Your task to perform on an android device: Search for "logitech g pro" on ebay.com, select the first entry, add it to the cart, then select checkout. Image 0: 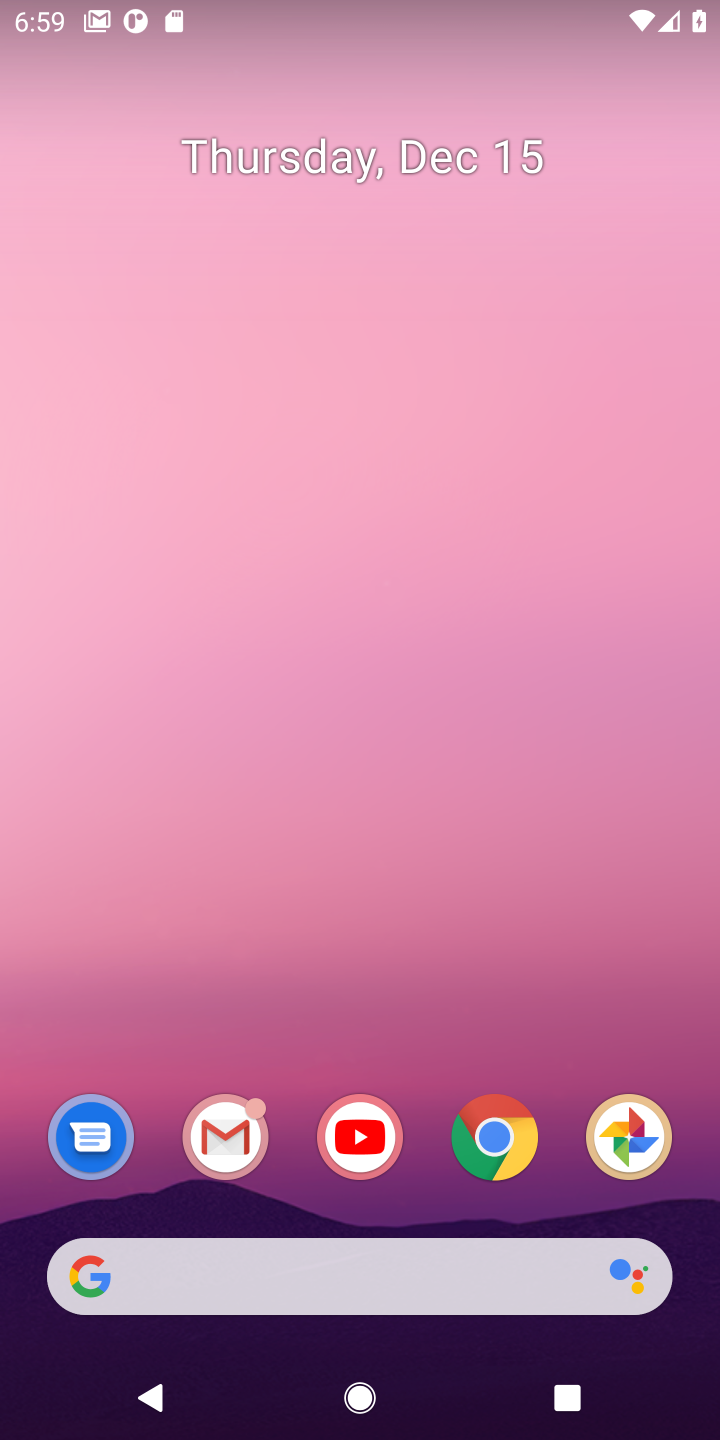
Step 0: drag from (398, 981) to (338, 508)
Your task to perform on an android device: Search for "logitech g pro" on ebay.com, select the first entry, add it to the cart, then select checkout. Image 1: 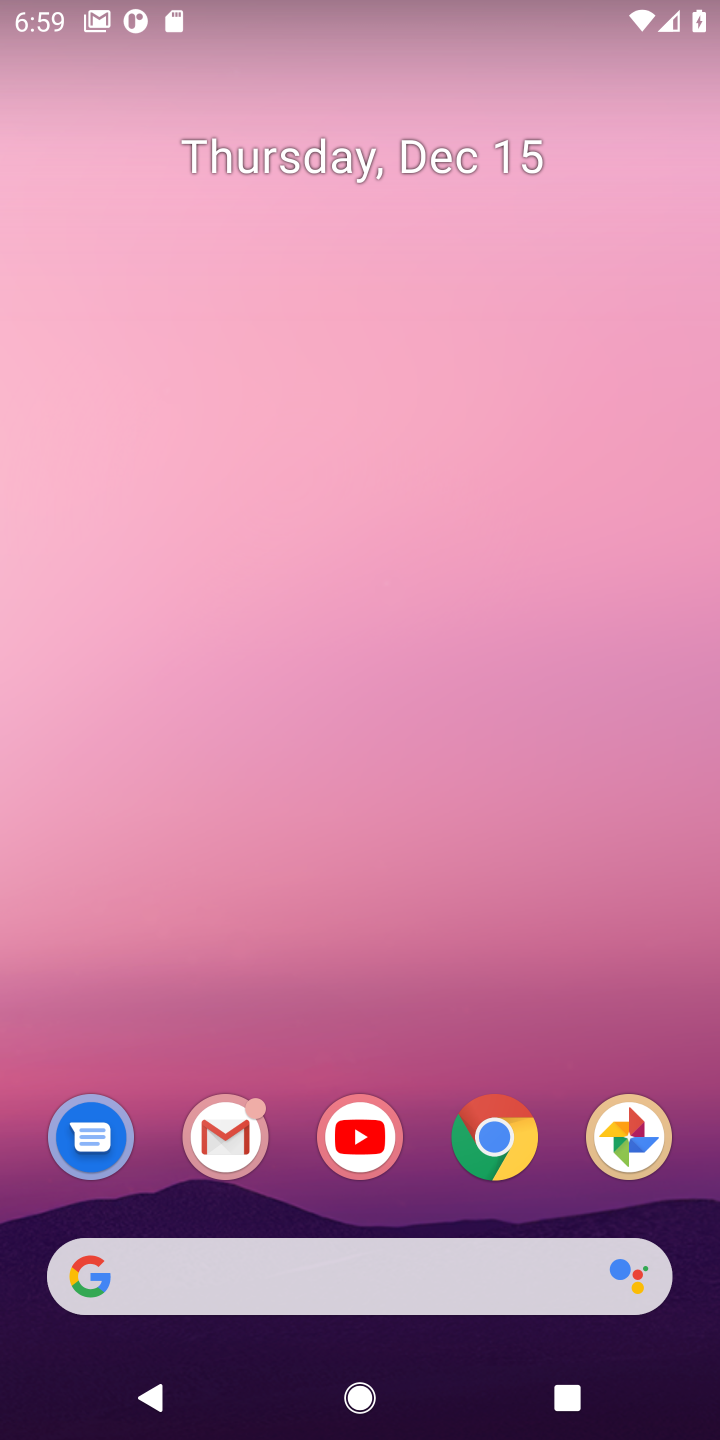
Step 1: drag from (258, 1037) to (258, 498)
Your task to perform on an android device: Search for "logitech g pro" on ebay.com, select the first entry, add it to the cart, then select checkout. Image 2: 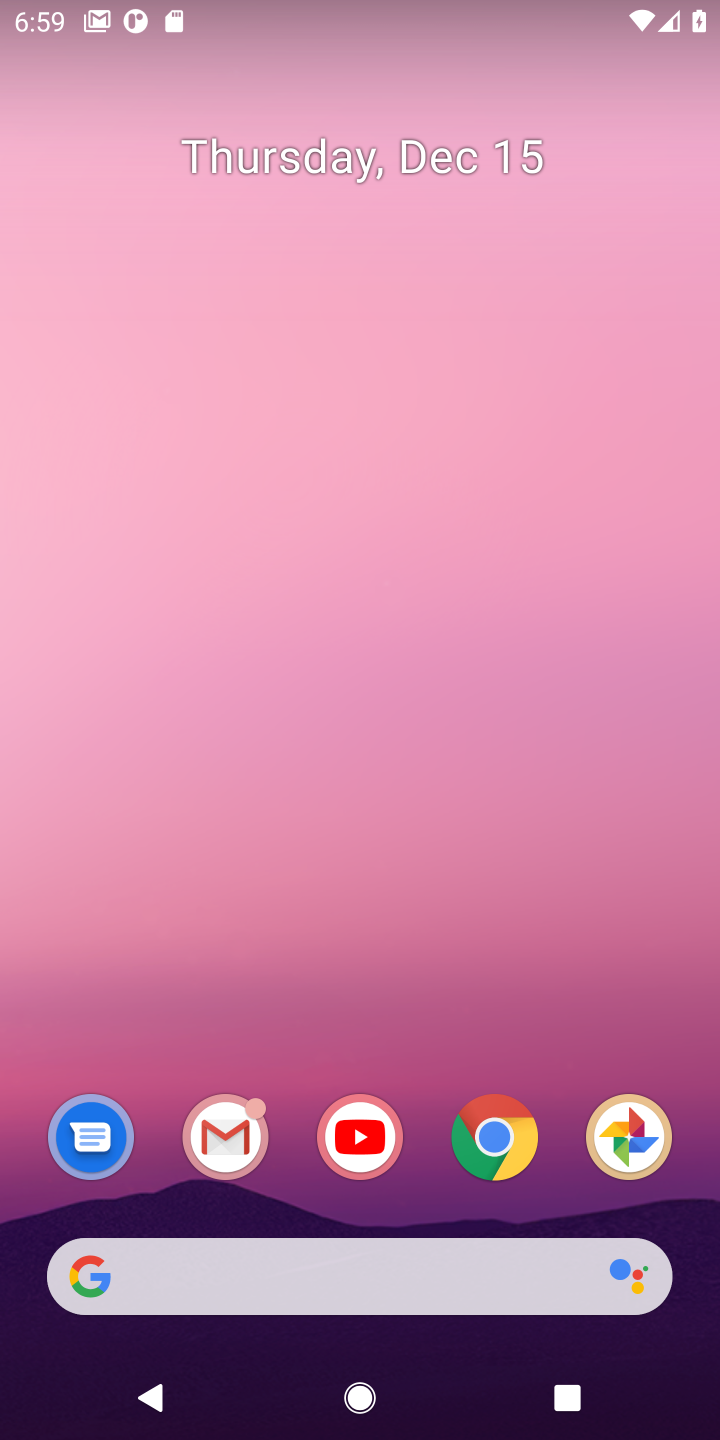
Step 2: drag from (308, 1246) to (306, 177)
Your task to perform on an android device: Search for "logitech g pro" on ebay.com, select the first entry, add it to the cart, then select checkout. Image 3: 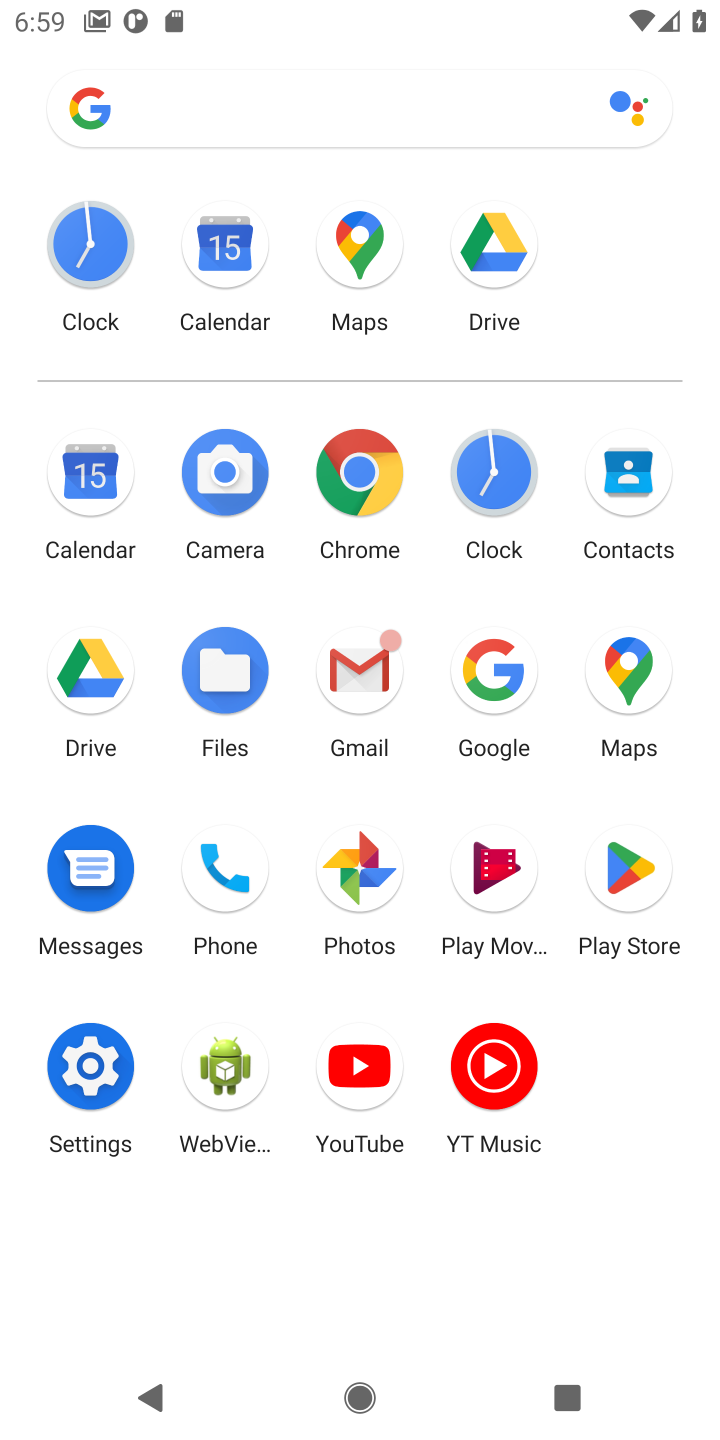
Step 3: click (486, 669)
Your task to perform on an android device: Search for "logitech g pro" on ebay.com, select the first entry, add it to the cart, then select checkout. Image 4: 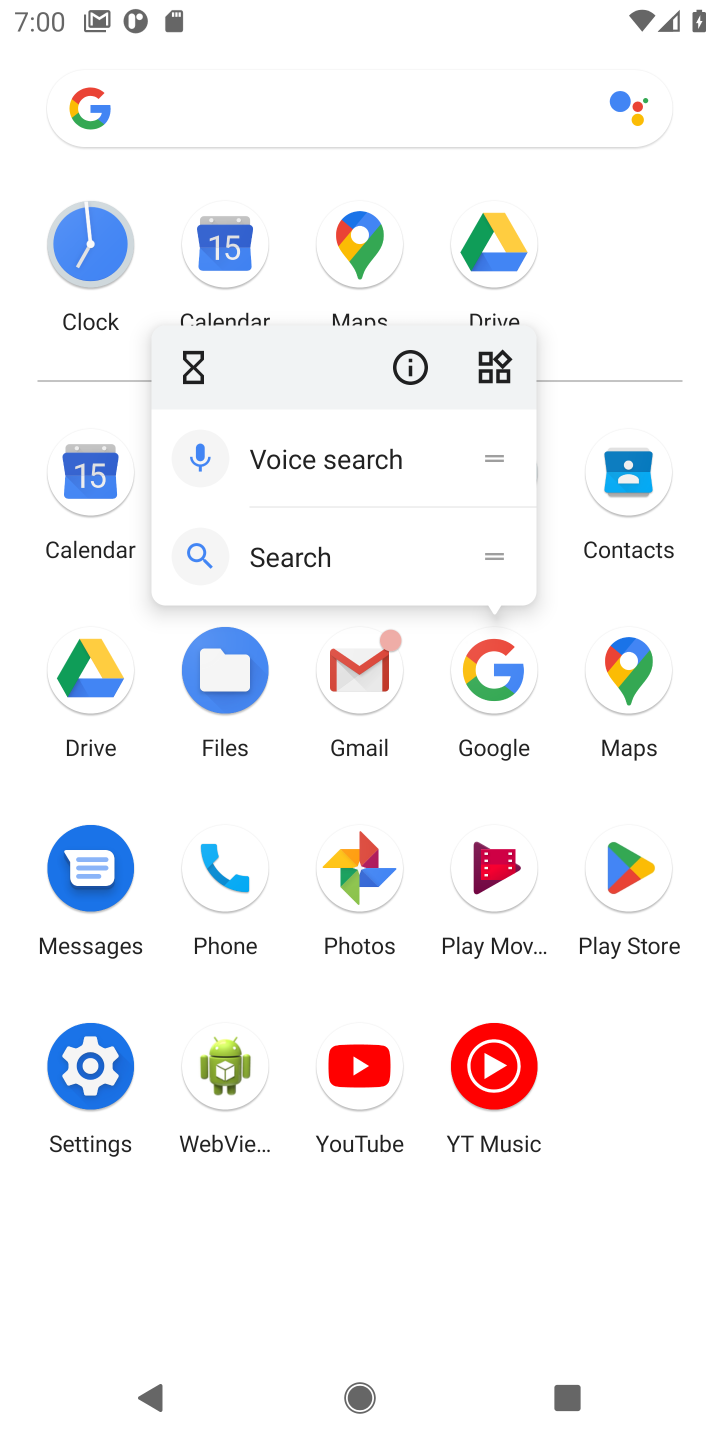
Step 4: click (492, 664)
Your task to perform on an android device: Search for "logitech g pro" on ebay.com, select the first entry, add it to the cart, then select checkout. Image 5: 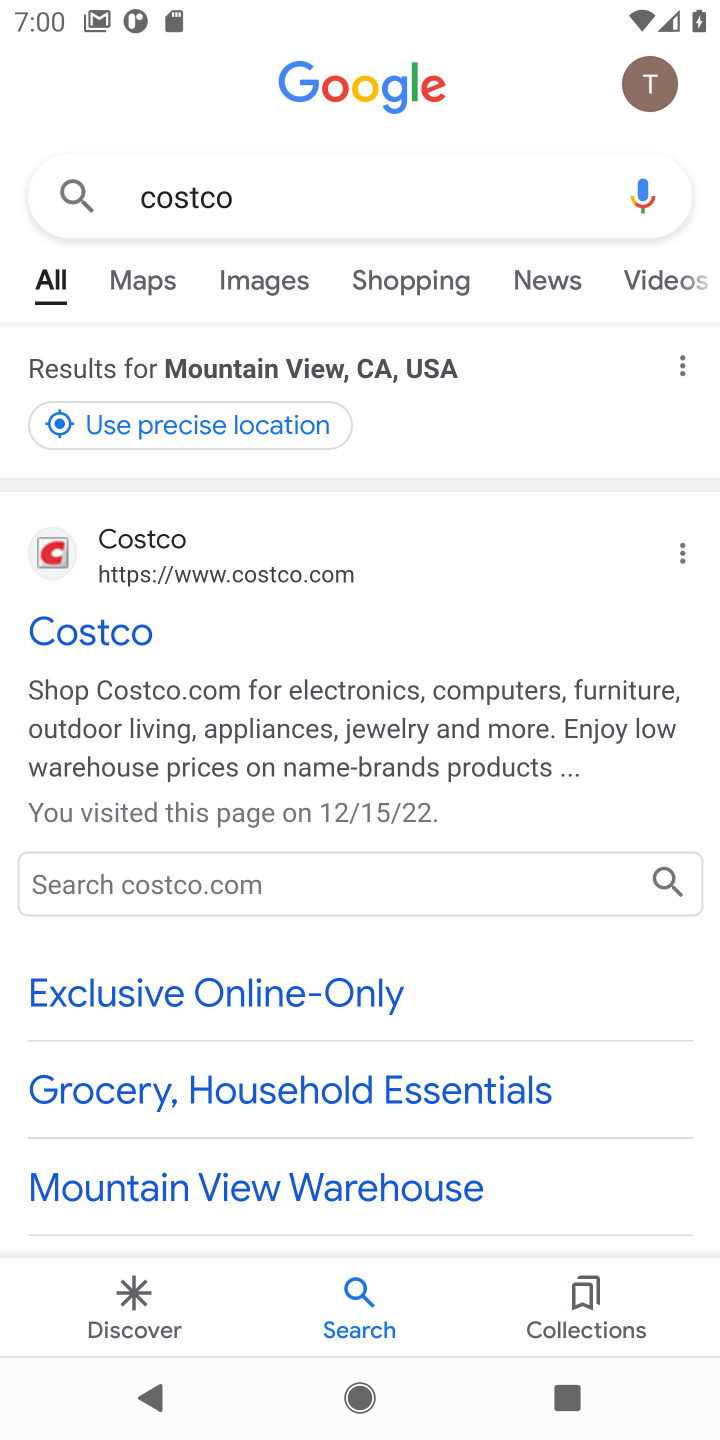
Step 5: click (173, 198)
Your task to perform on an android device: Search for "logitech g pro" on ebay.com, select the first entry, add it to the cart, then select checkout. Image 6: 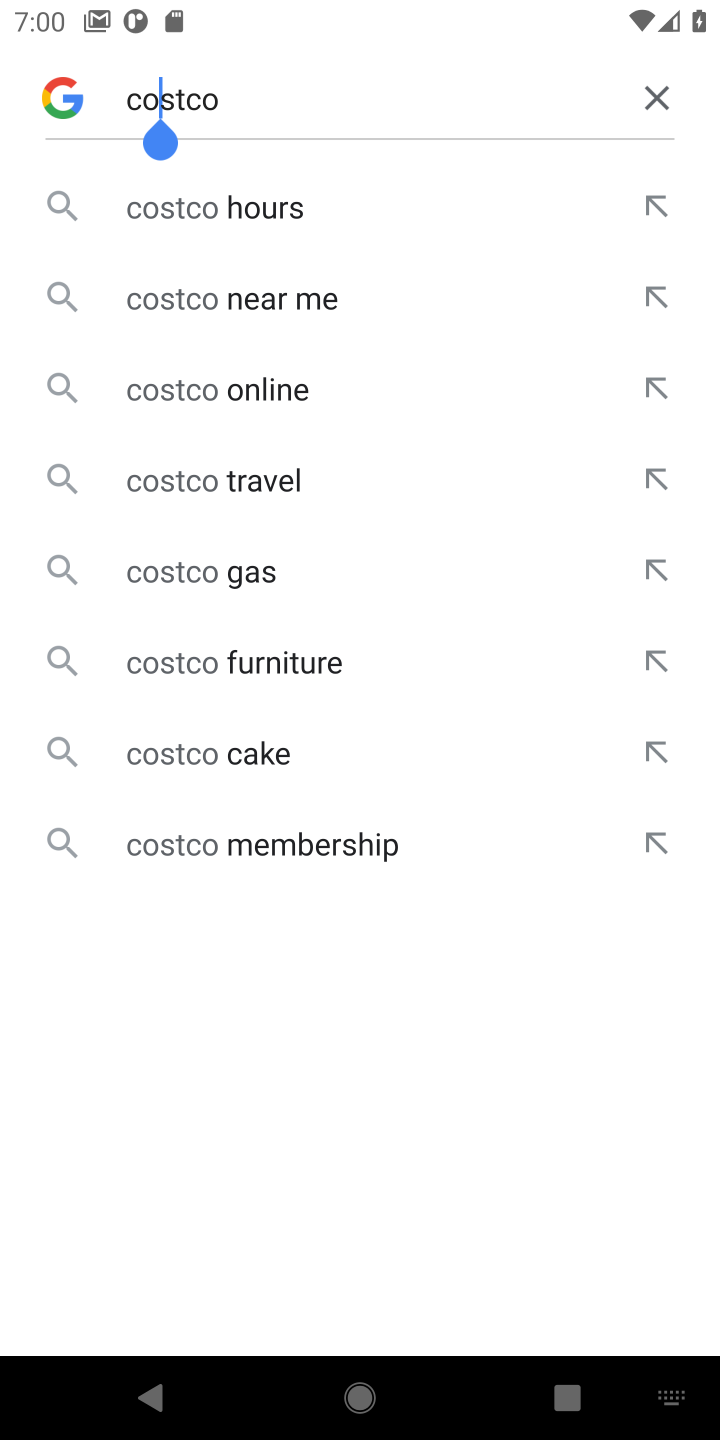
Step 6: click (658, 91)
Your task to perform on an android device: Search for "logitech g pro" on ebay.com, select the first entry, add it to the cart, then select checkout. Image 7: 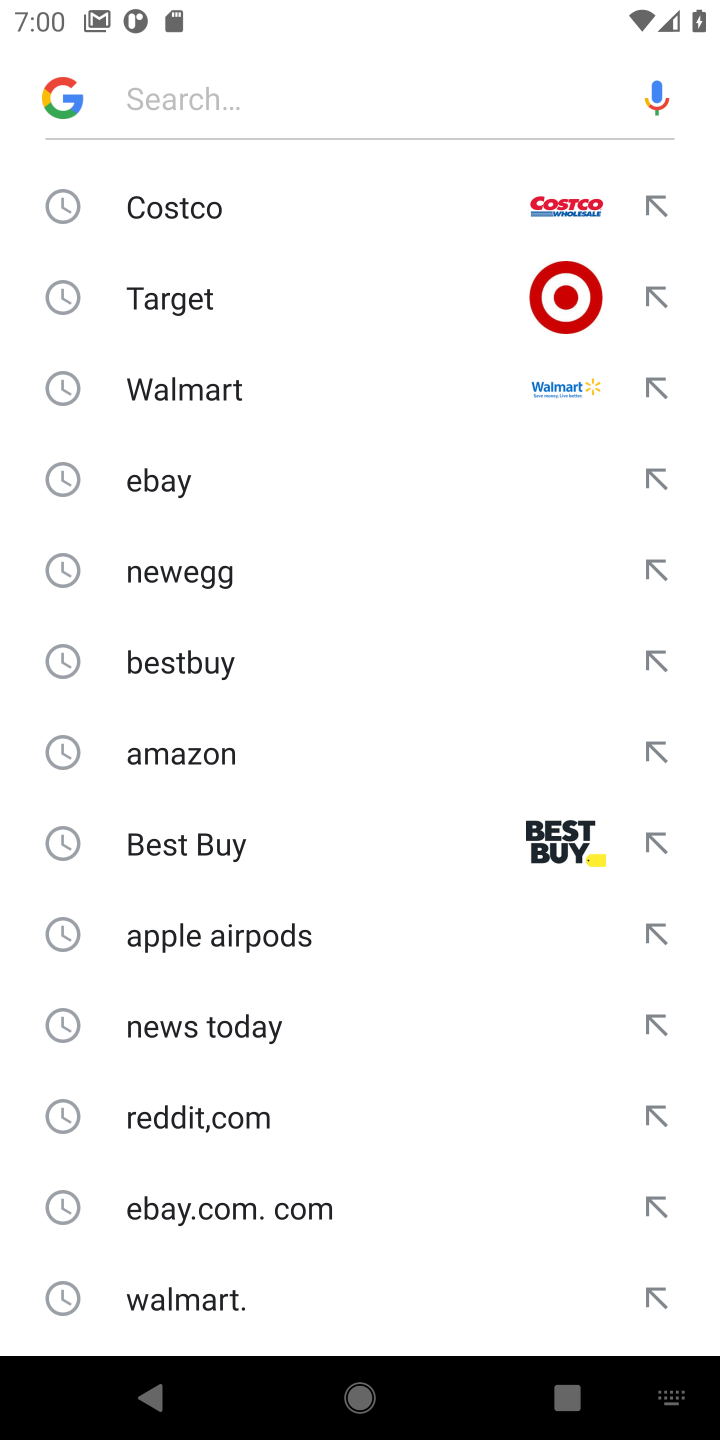
Step 7: click (145, 484)
Your task to perform on an android device: Search for "logitech g pro" on ebay.com, select the first entry, add it to the cart, then select checkout. Image 8: 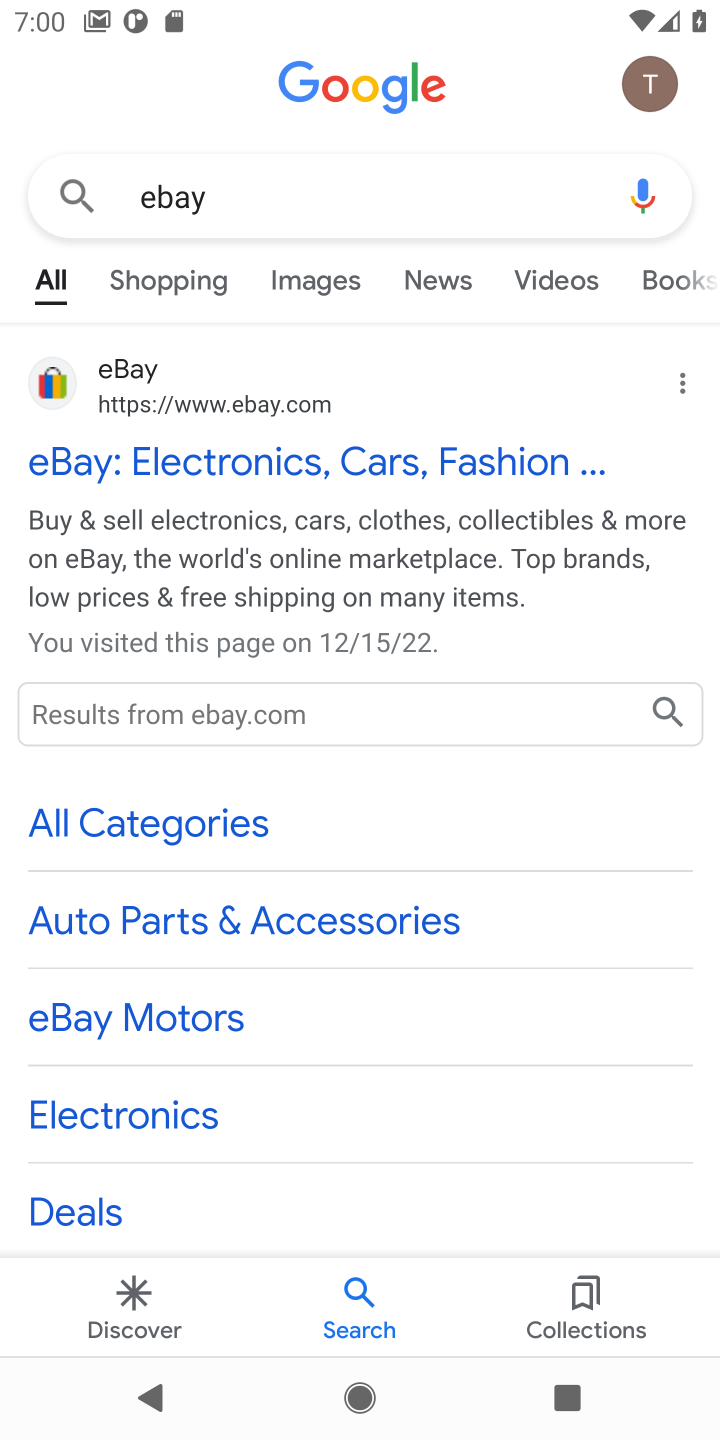
Step 8: click (198, 454)
Your task to perform on an android device: Search for "logitech g pro" on ebay.com, select the first entry, add it to the cart, then select checkout. Image 9: 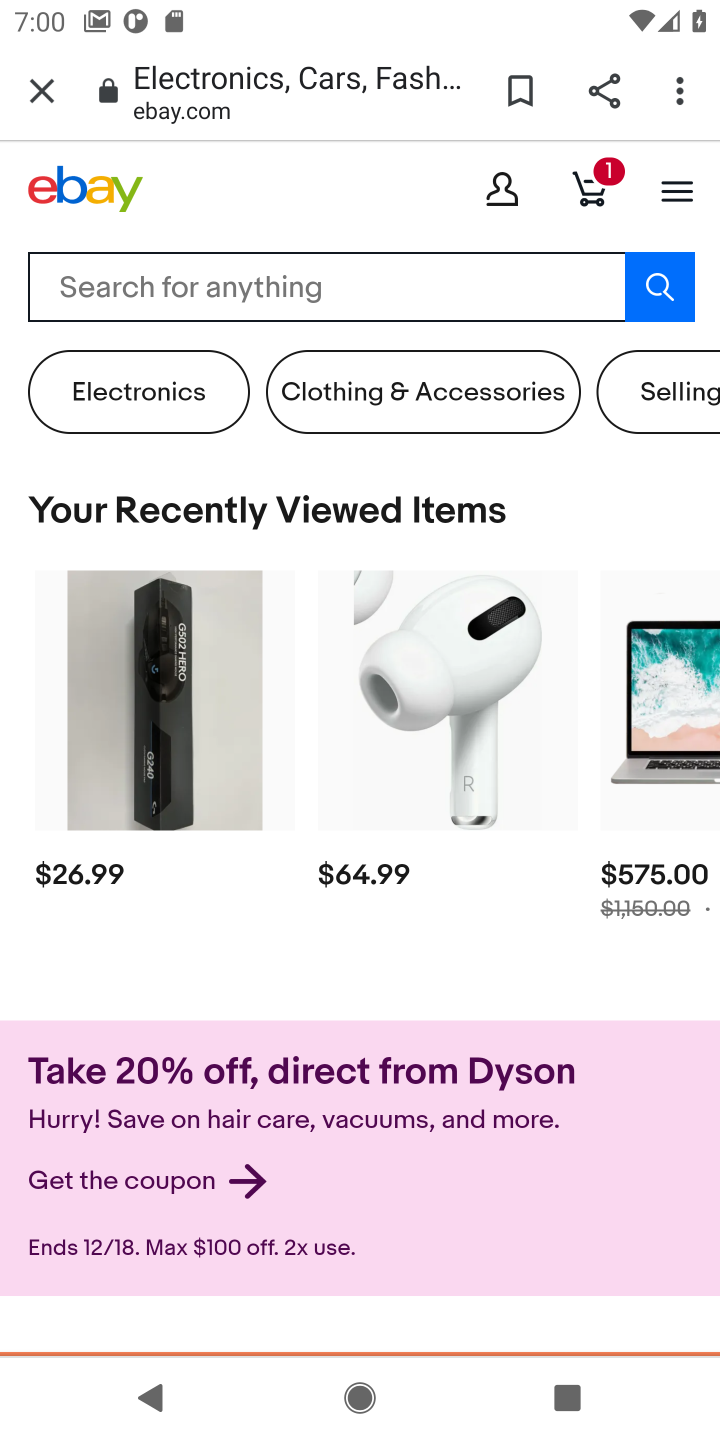
Step 9: click (92, 285)
Your task to perform on an android device: Search for "logitech g pro" on ebay.com, select the first entry, add it to the cart, then select checkout. Image 10: 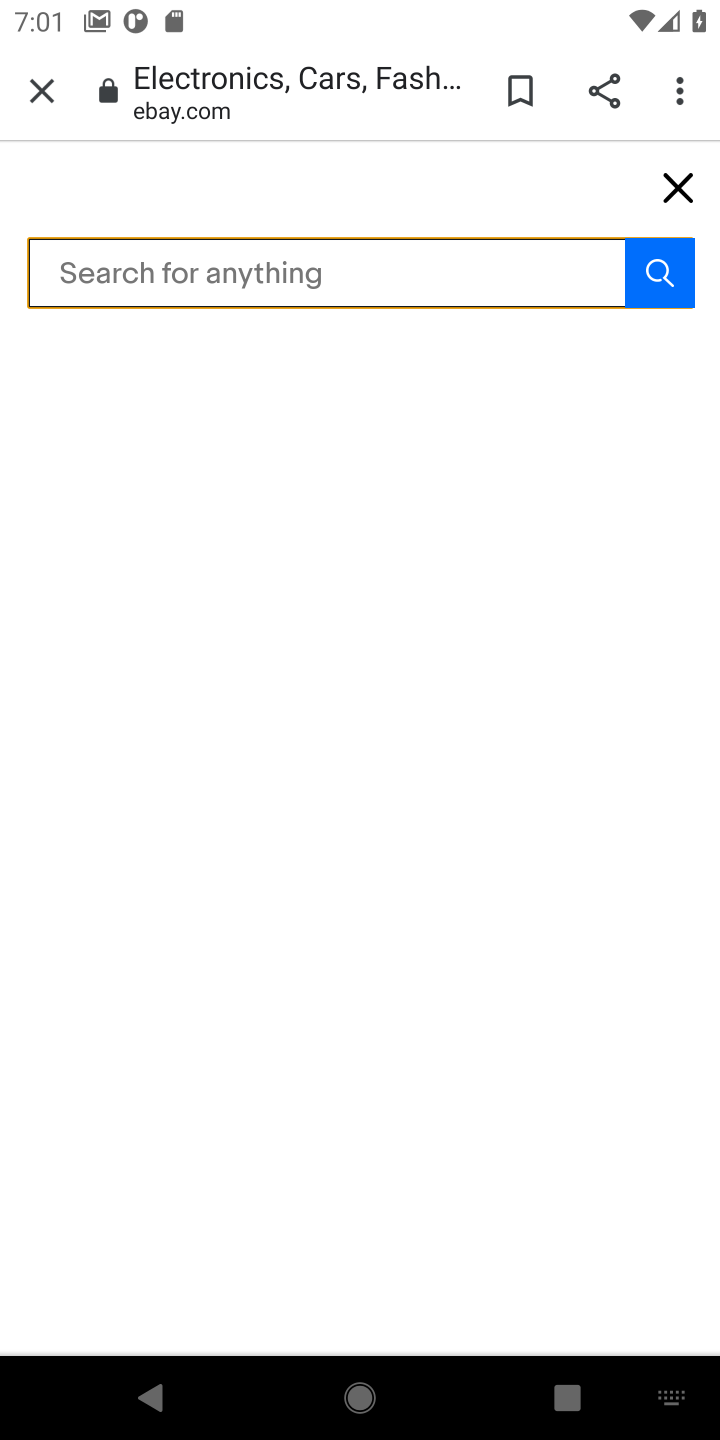
Step 10: type "logitech g pro"
Your task to perform on an android device: Search for "logitech g pro" on ebay.com, select the first entry, add it to the cart, then select checkout. Image 11: 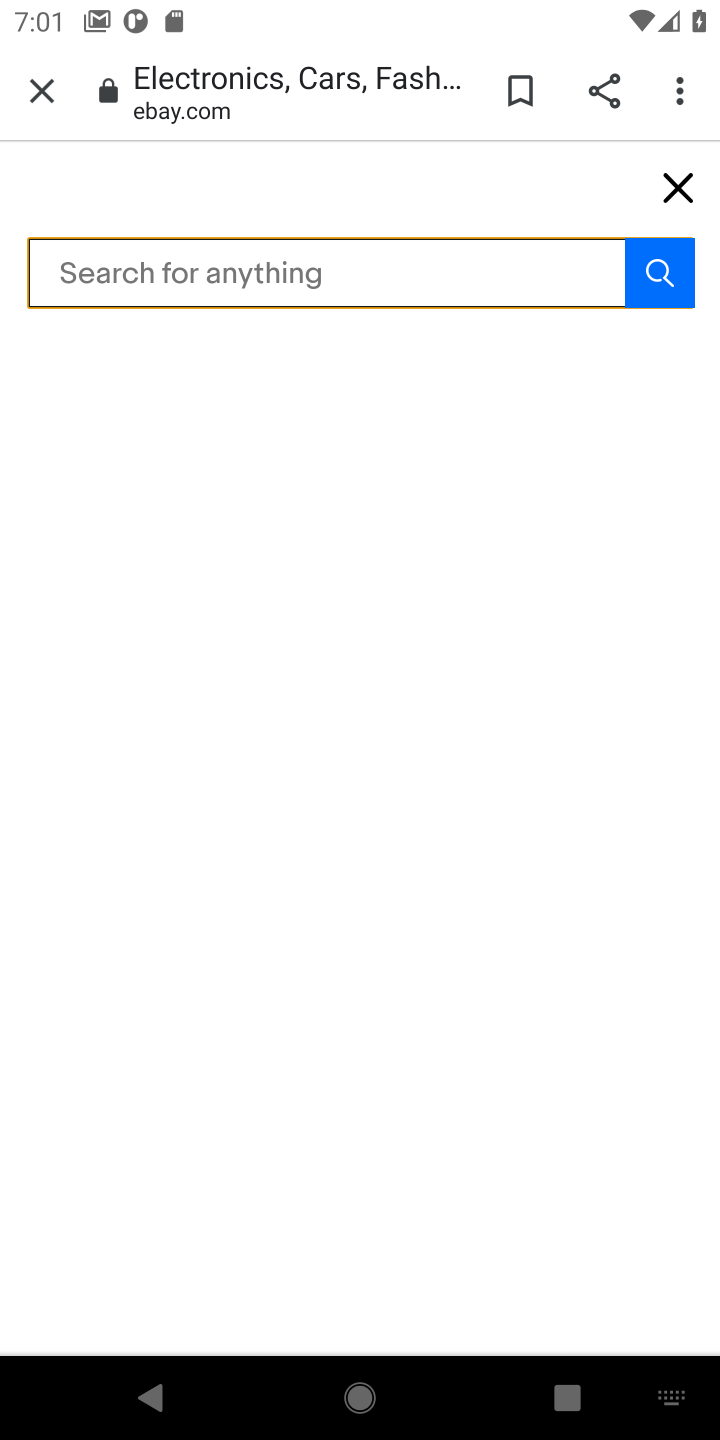
Step 11: click (645, 276)
Your task to perform on an android device: Search for "logitech g pro" on ebay.com, select the first entry, add it to the cart, then select checkout. Image 12: 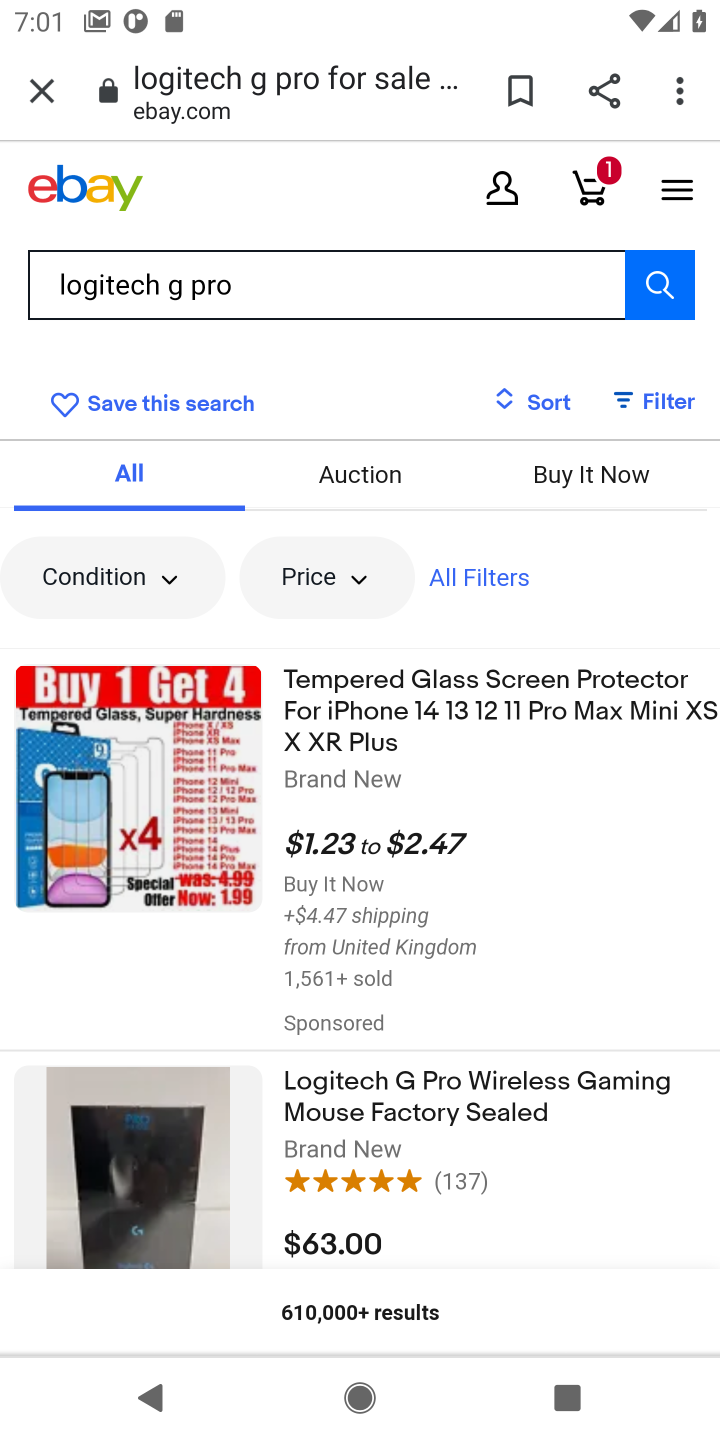
Step 12: click (389, 718)
Your task to perform on an android device: Search for "logitech g pro" on ebay.com, select the first entry, add it to the cart, then select checkout. Image 13: 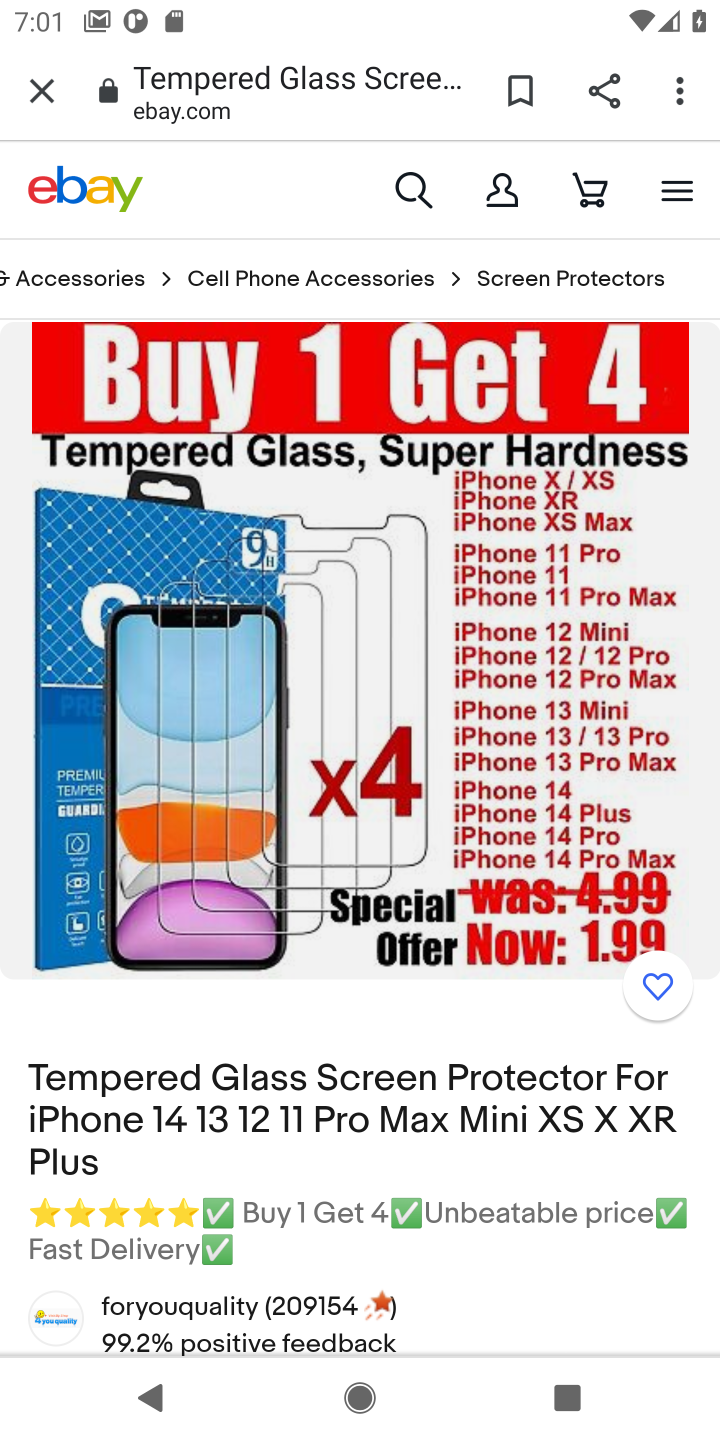
Step 13: drag from (394, 940) to (387, 574)
Your task to perform on an android device: Search for "logitech g pro" on ebay.com, select the first entry, add it to the cart, then select checkout. Image 14: 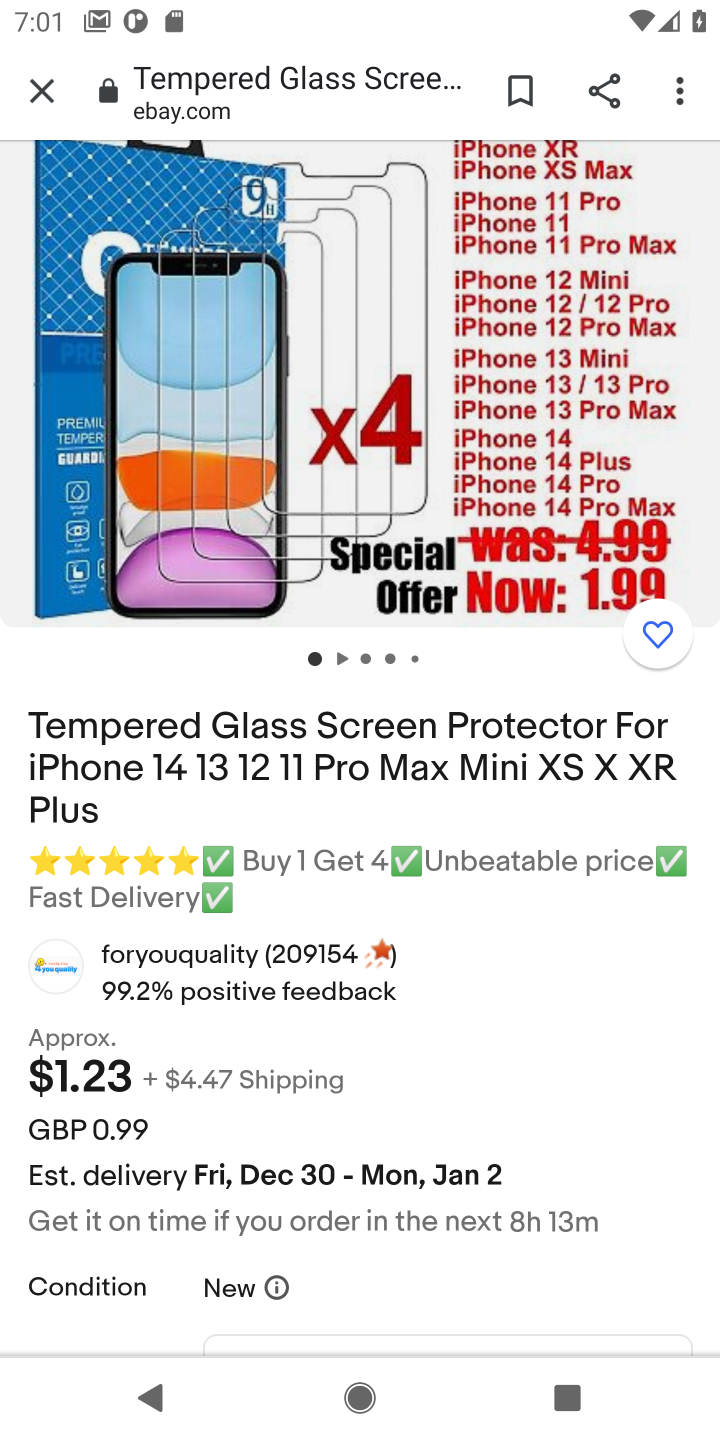
Step 14: drag from (389, 1090) to (352, 607)
Your task to perform on an android device: Search for "logitech g pro" on ebay.com, select the first entry, add it to the cart, then select checkout. Image 15: 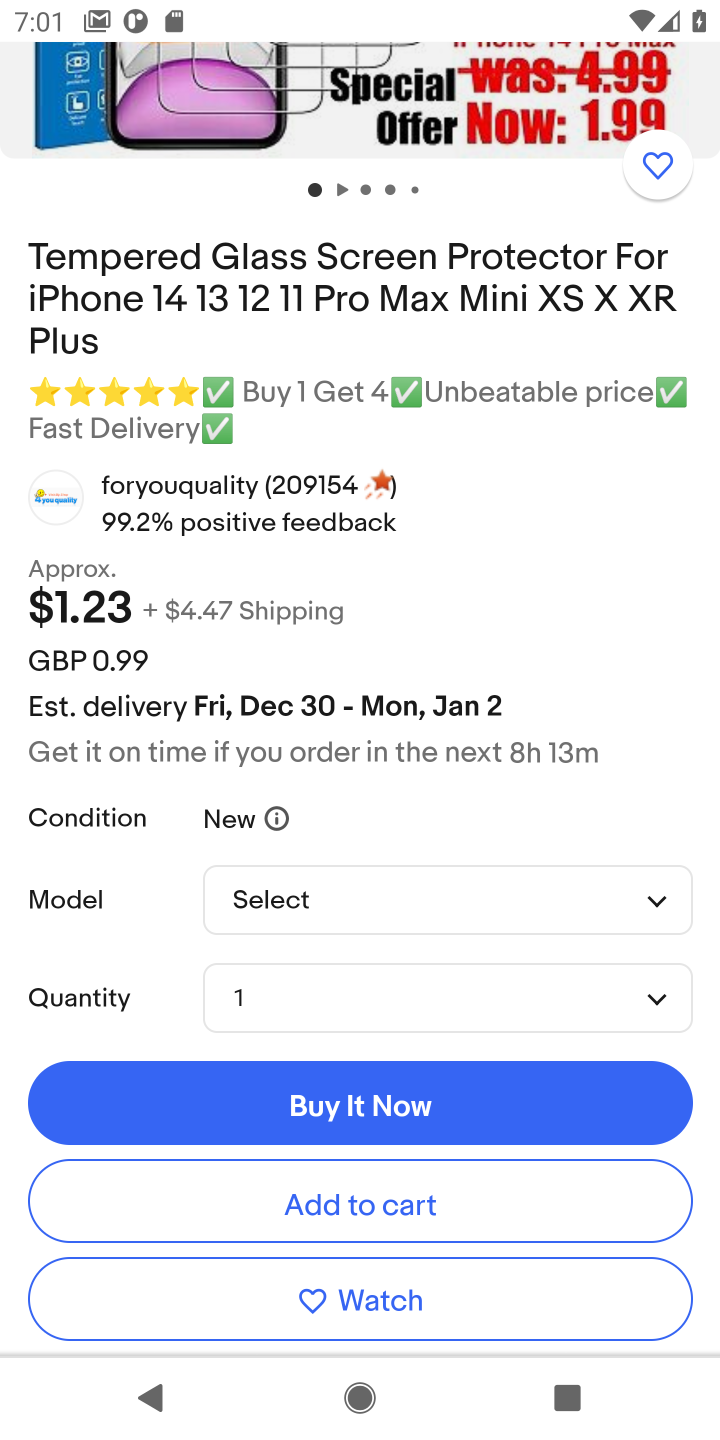
Step 15: click (390, 1194)
Your task to perform on an android device: Search for "logitech g pro" on ebay.com, select the first entry, add it to the cart, then select checkout. Image 16: 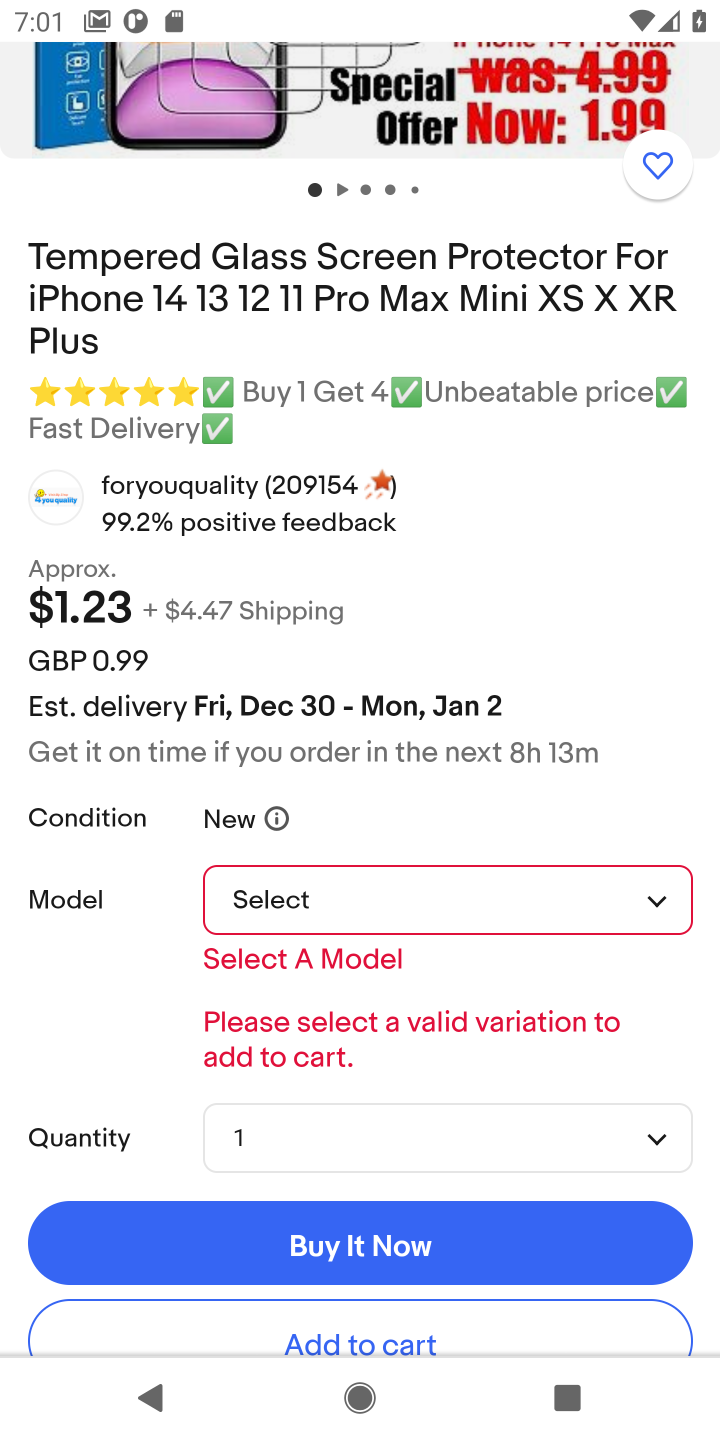
Step 16: click (670, 901)
Your task to perform on an android device: Search for "logitech g pro" on ebay.com, select the first entry, add it to the cart, then select checkout. Image 17: 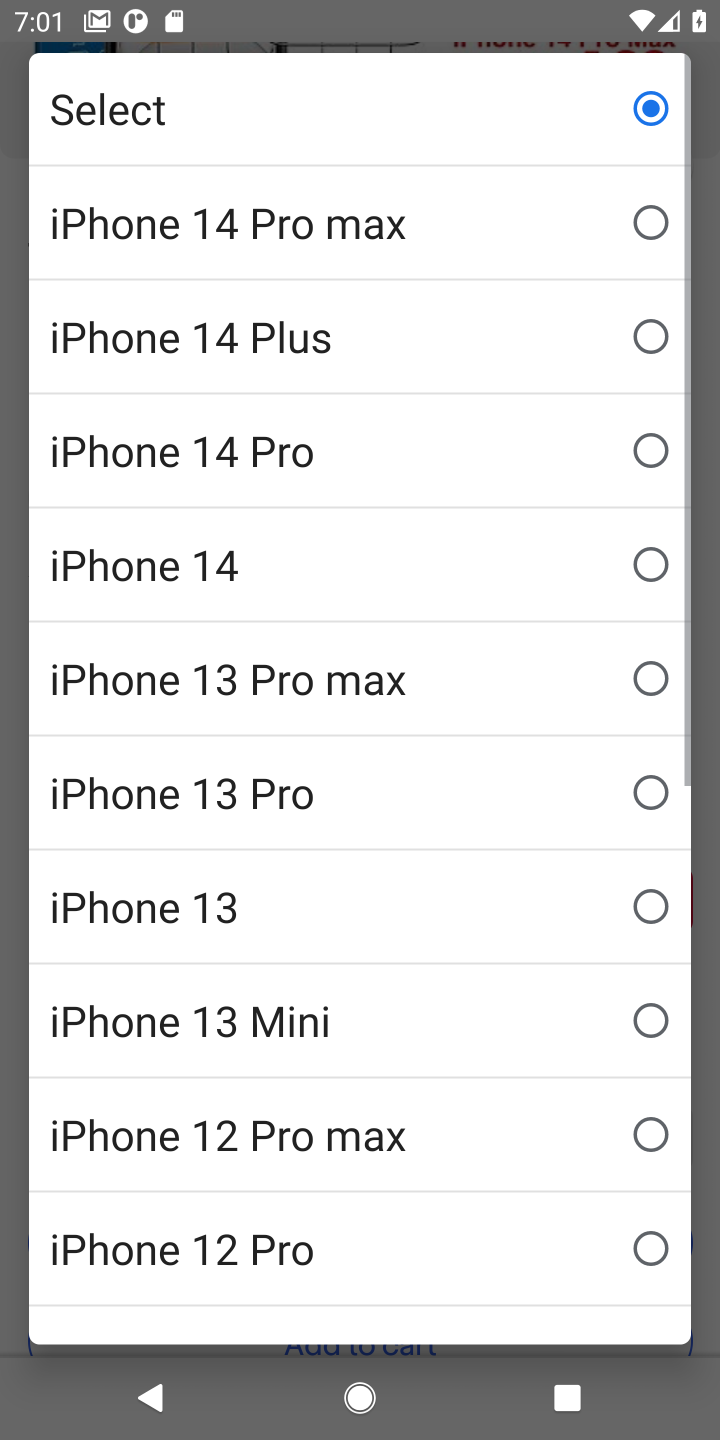
Step 17: click (237, 920)
Your task to perform on an android device: Search for "logitech g pro" on ebay.com, select the first entry, add it to the cart, then select checkout. Image 18: 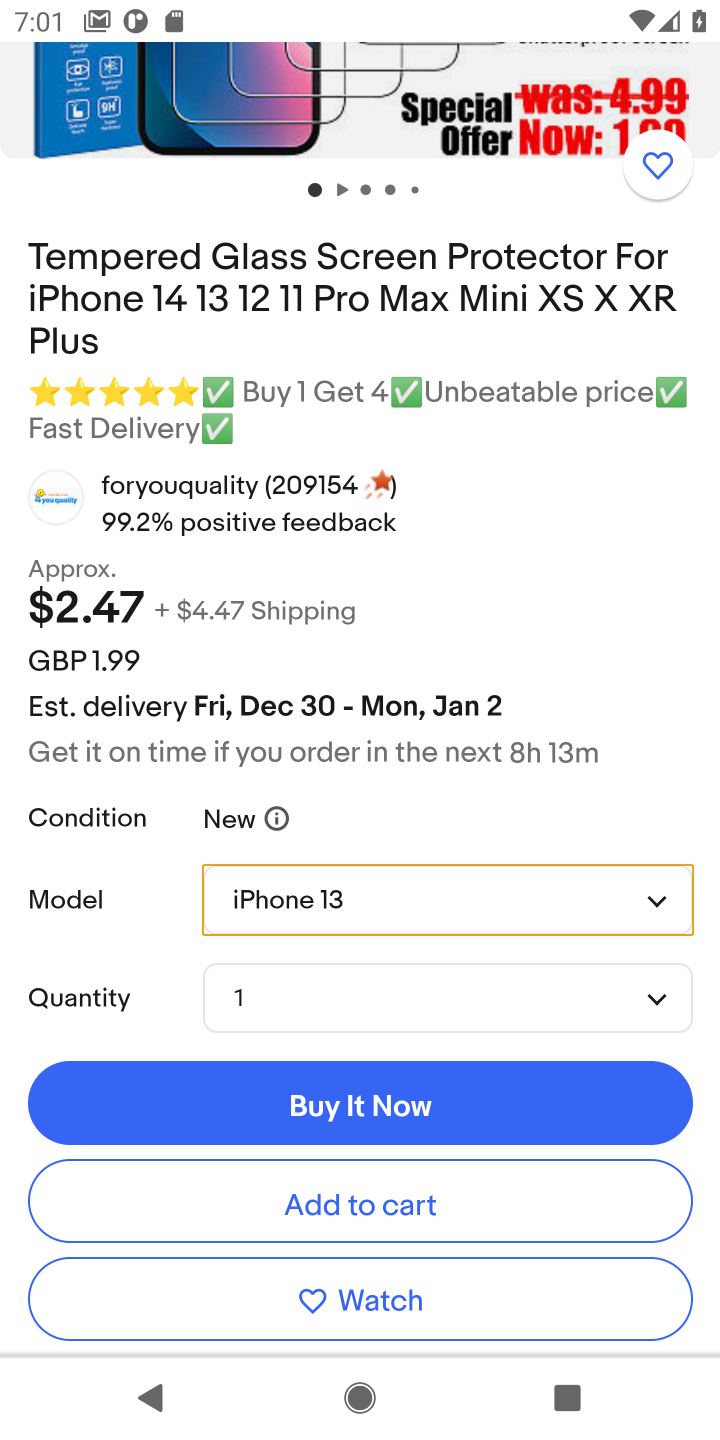
Step 18: click (314, 1212)
Your task to perform on an android device: Search for "logitech g pro" on ebay.com, select the first entry, add it to the cart, then select checkout. Image 19: 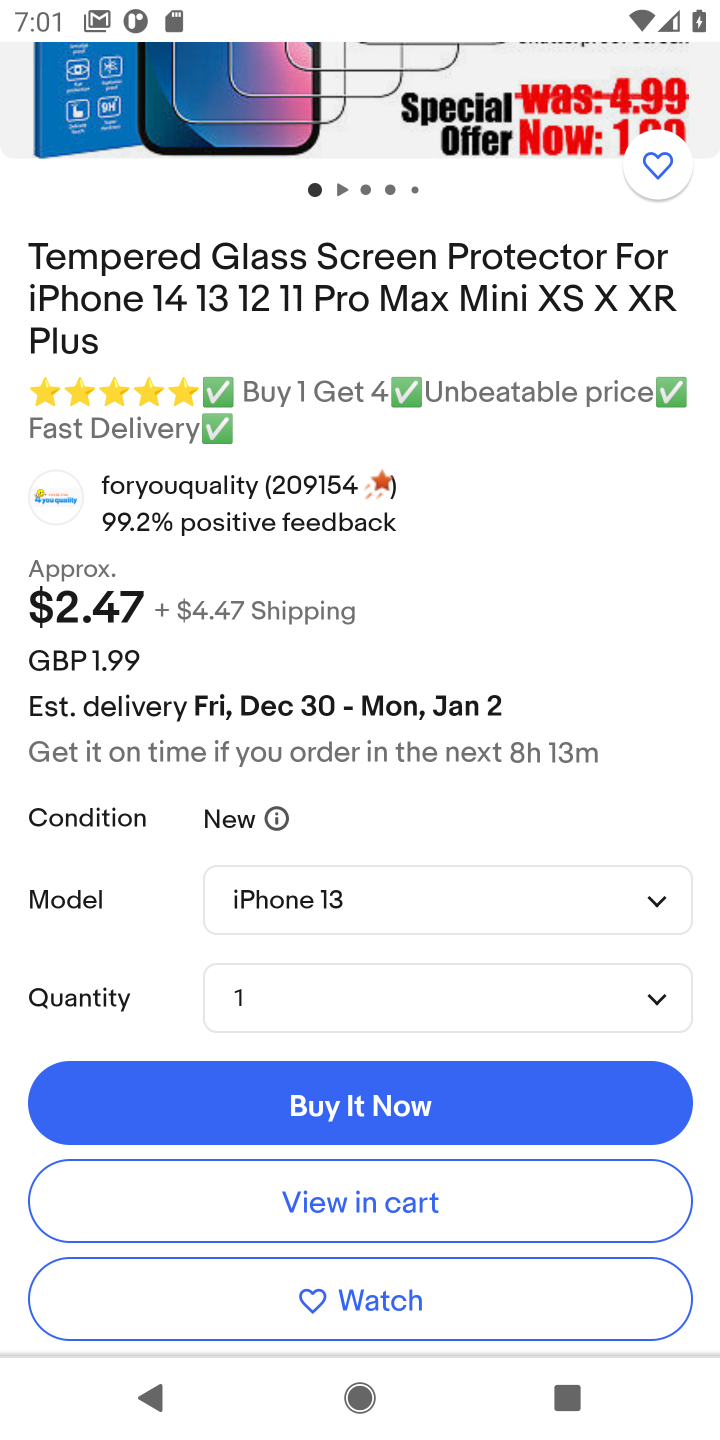
Step 19: click (314, 1192)
Your task to perform on an android device: Search for "logitech g pro" on ebay.com, select the first entry, add it to the cart, then select checkout. Image 20: 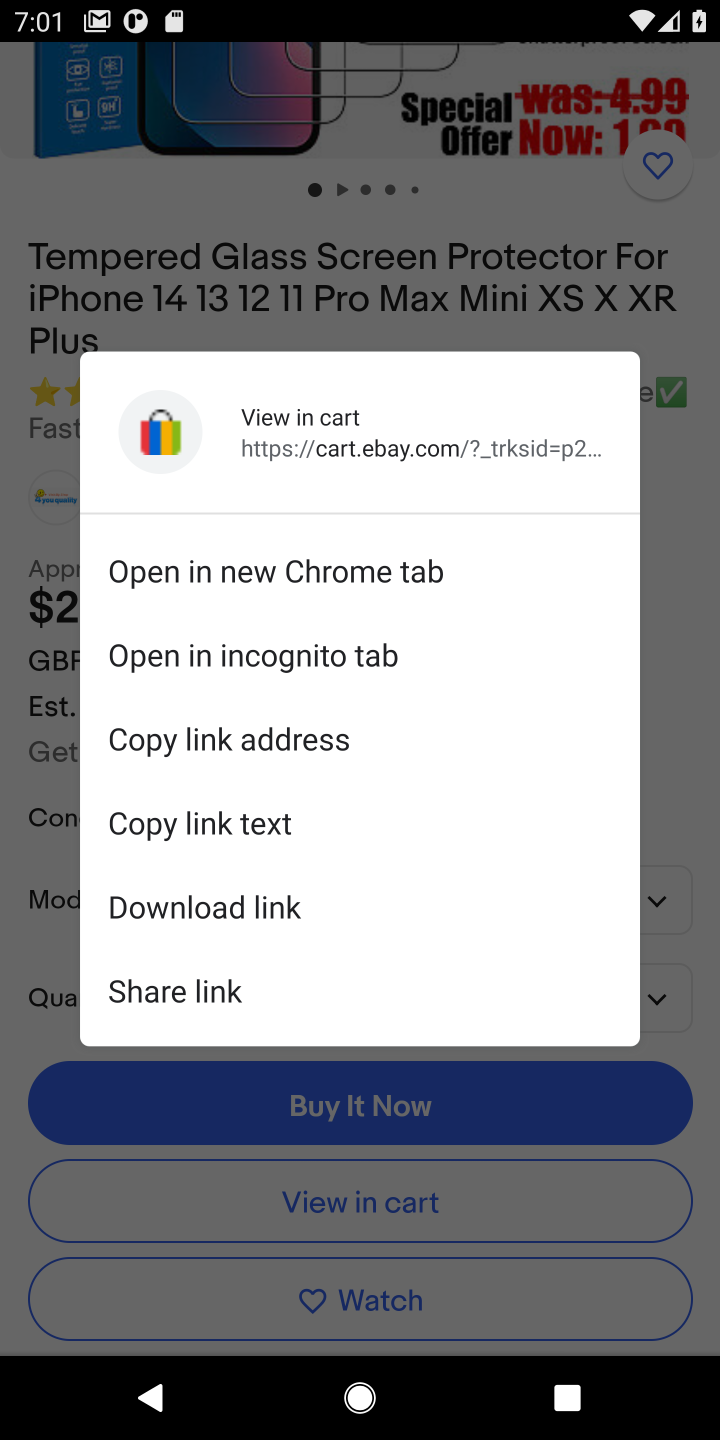
Step 20: click (38, 1033)
Your task to perform on an android device: Search for "logitech g pro" on ebay.com, select the first entry, add it to the cart, then select checkout. Image 21: 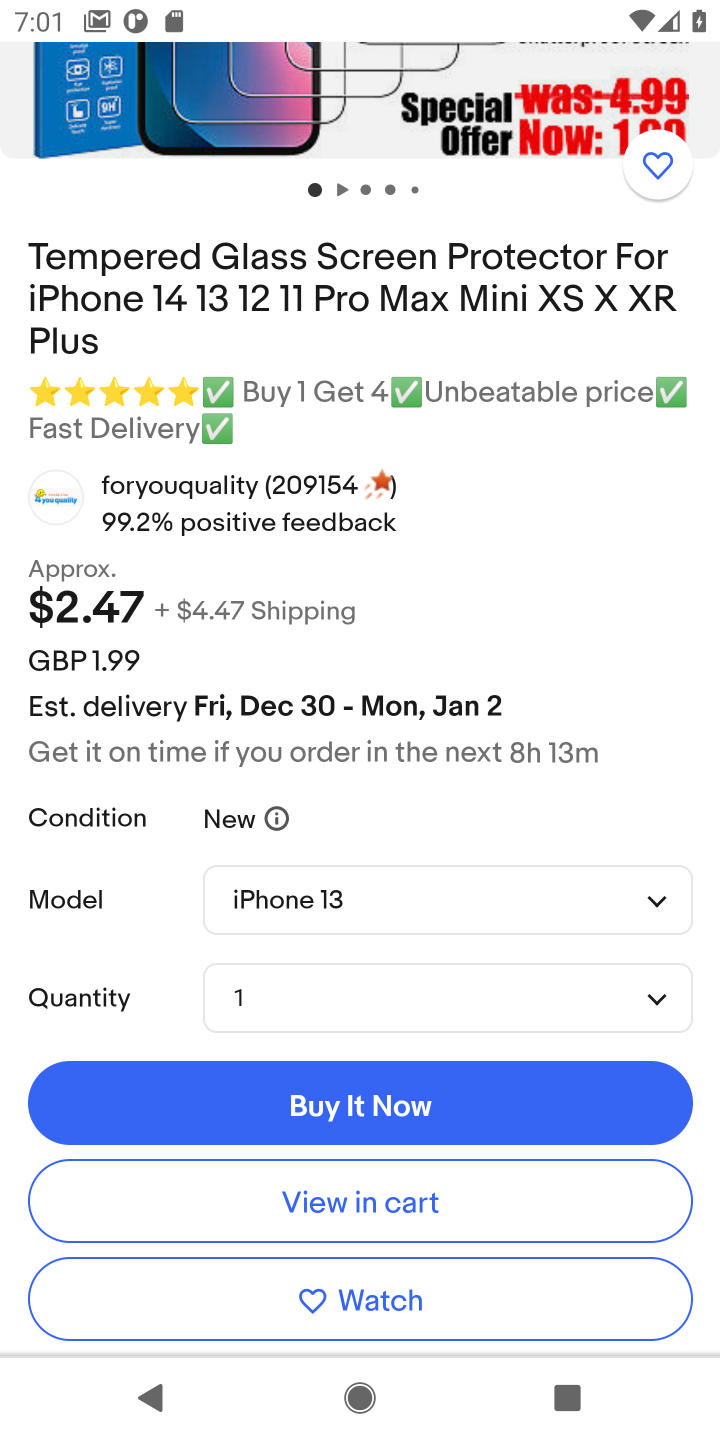
Step 21: click (374, 1194)
Your task to perform on an android device: Search for "logitech g pro" on ebay.com, select the first entry, add it to the cart, then select checkout. Image 22: 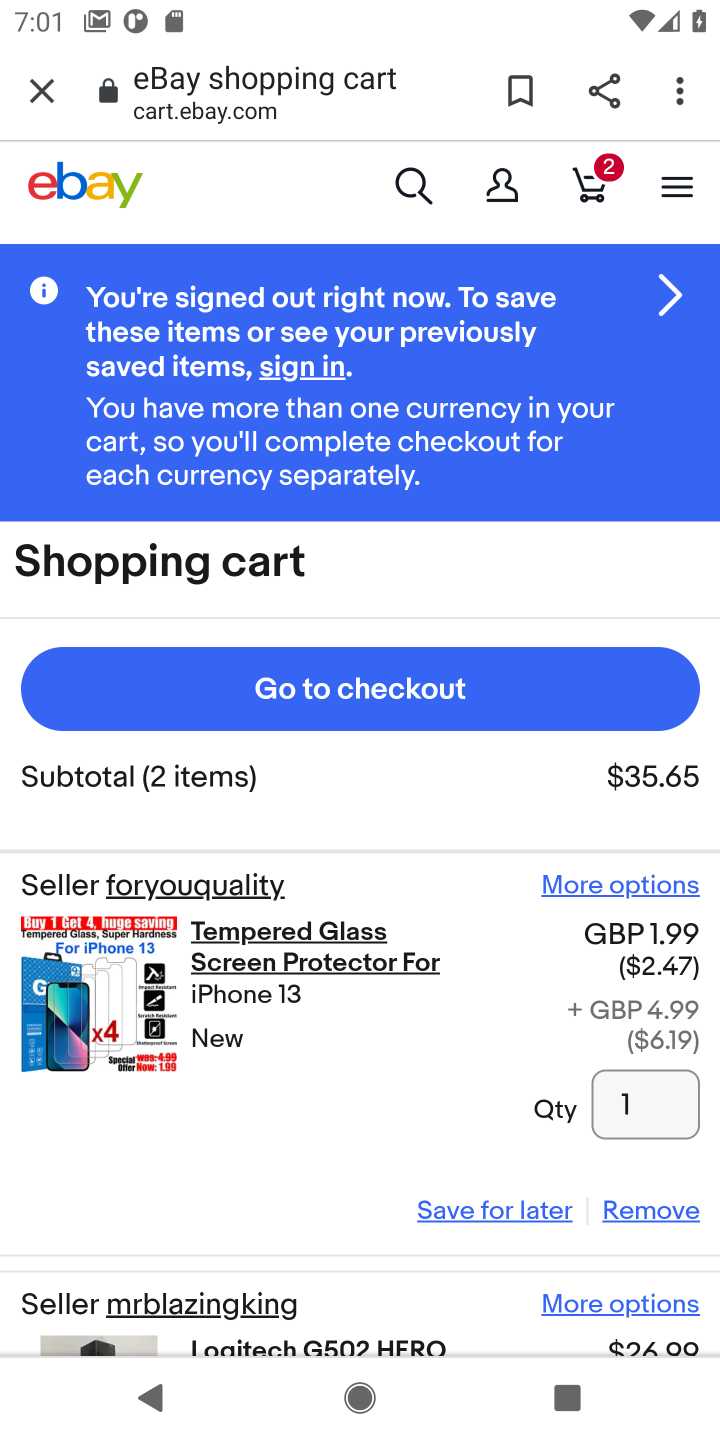
Step 22: click (437, 698)
Your task to perform on an android device: Search for "logitech g pro" on ebay.com, select the first entry, add it to the cart, then select checkout. Image 23: 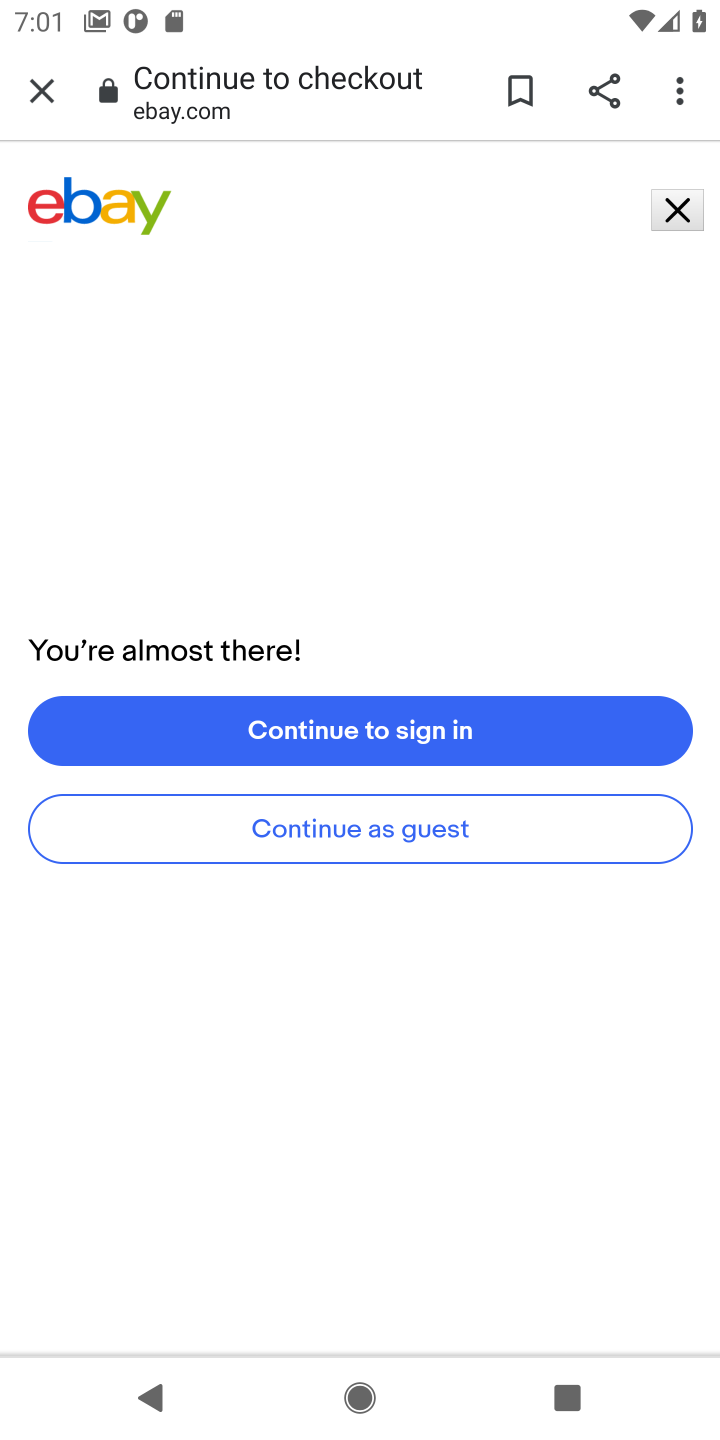
Step 23: task complete